Your task to perform on an android device: Search for sushi restaurants on Maps Image 0: 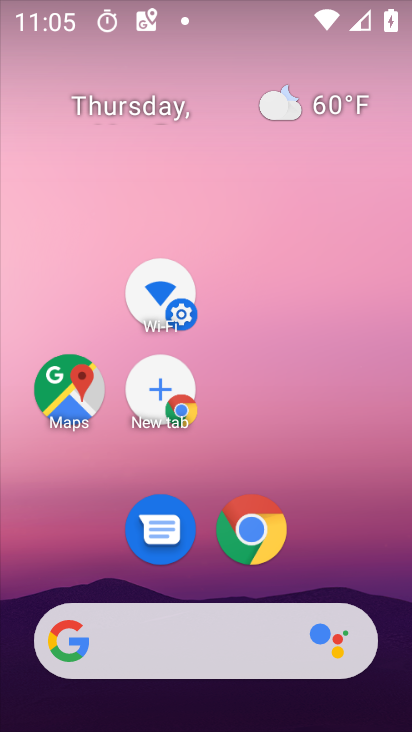
Step 0: drag from (358, 598) to (136, 96)
Your task to perform on an android device: Search for sushi restaurants on Maps Image 1: 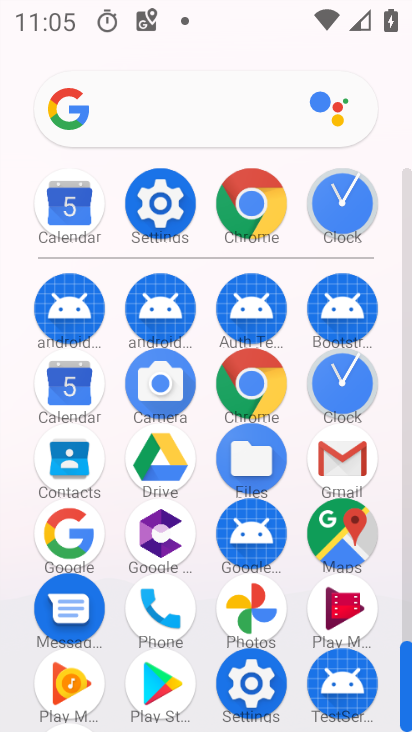
Step 1: click (364, 541)
Your task to perform on an android device: Search for sushi restaurants on Maps Image 2: 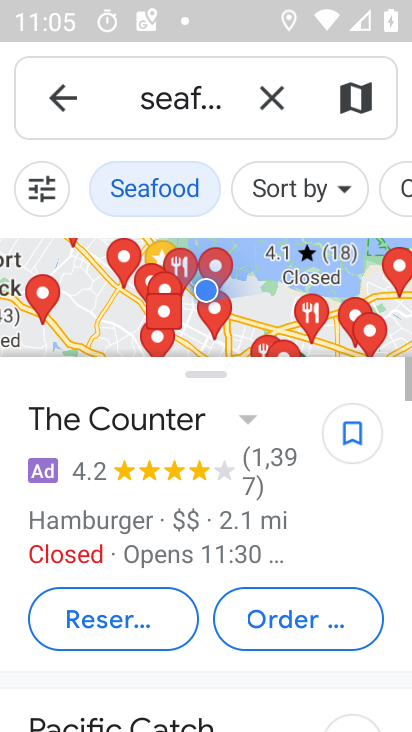
Step 2: click (206, 93)
Your task to perform on an android device: Search for sushi restaurants on Maps Image 3: 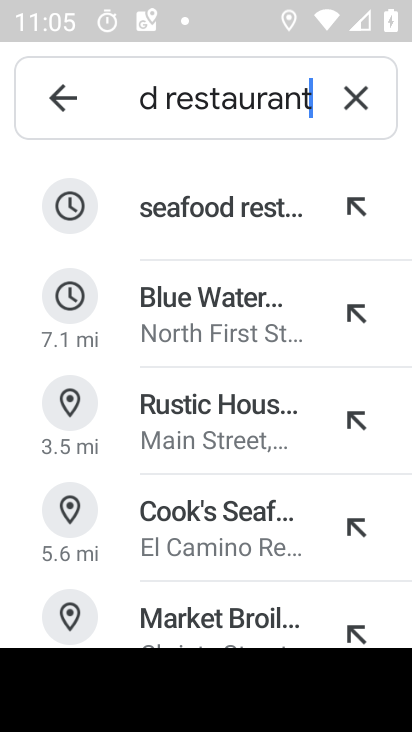
Step 3: click (359, 93)
Your task to perform on an android device: Search for sushi restaurants on Maps Image 4: 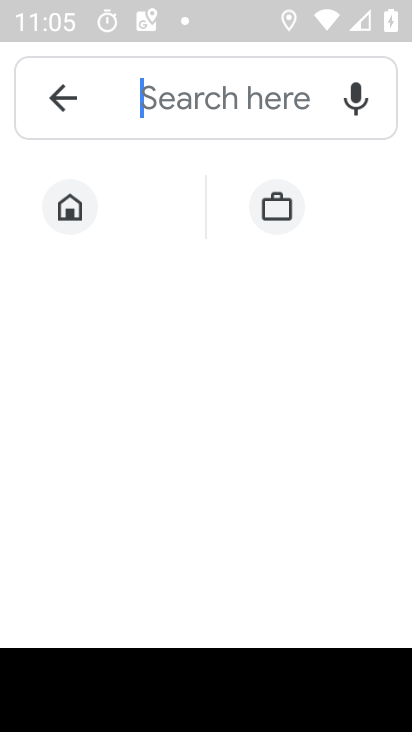
Step 4: type "shushi restaurants"
Your task to perform on an android device: Search for sushi restaurants on Maps Image 5: 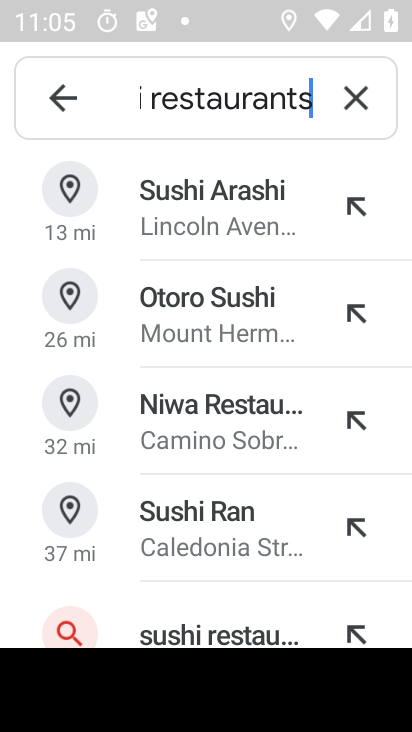
Step 5: drag from (292, 514) to (250, 147)
Your task to perform on an android device: Search for sushi restaurants on Maps Image 6: 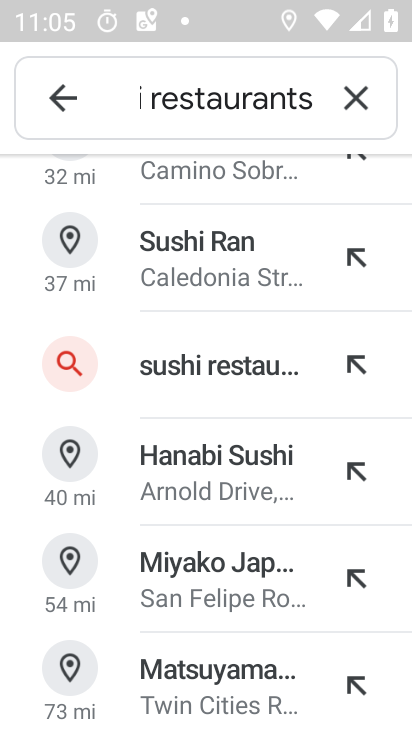
Step 6: click (223, 363)
Your task to perform on an android device: Search for sushi restaurants on Maps Image 7: 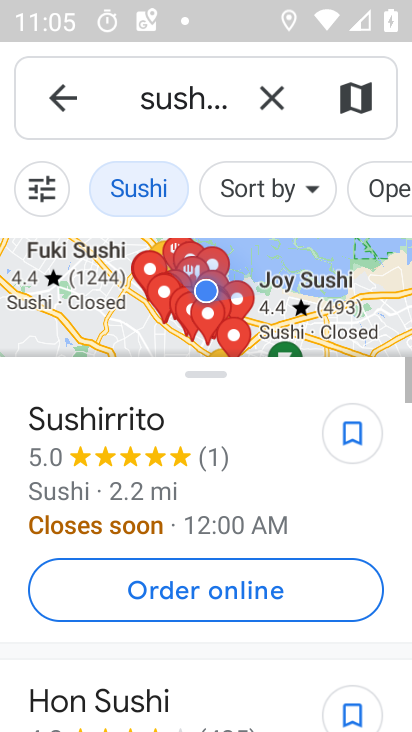
Step 7: task complete